Your task to perform on an android device: check data usage Image 0: 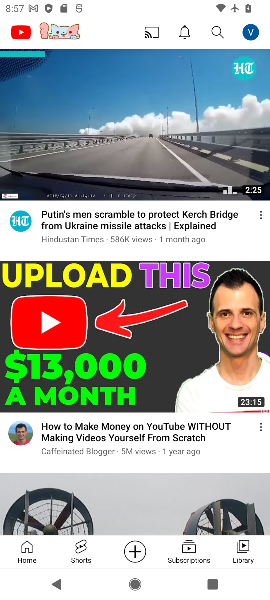
Step 0: press home button
Your task to perform on an android device: check data usage Image 1: 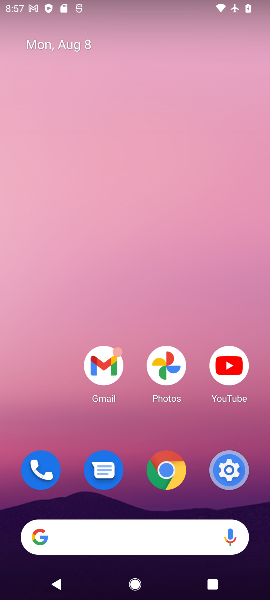
Step 1: drag from (77, 525) to (76, 223)
Your task to perform on an android device: check data usage Image 2: 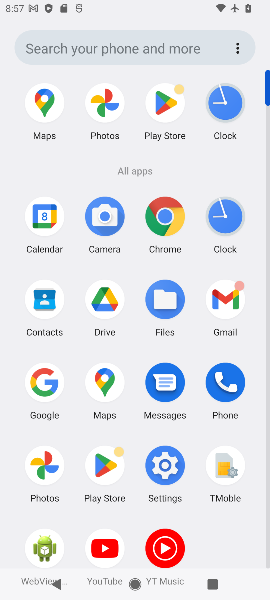
Step 2: click (156, 465)
Your task to perform on an android device: check data usage Image 3: 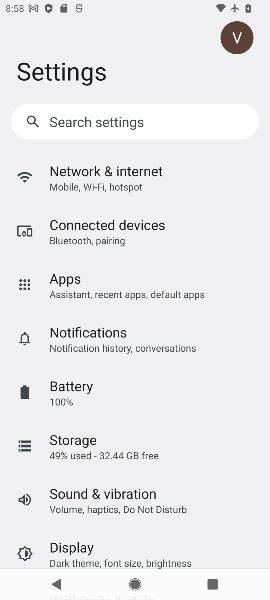
Step 3: click (91, 186)
Your task to perform on an android device: check data usage Image 4: 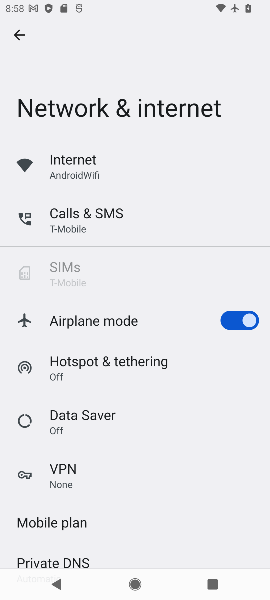
Step 4: click (80, 170)
Your task to perform on an android device: check data usage Image 5: 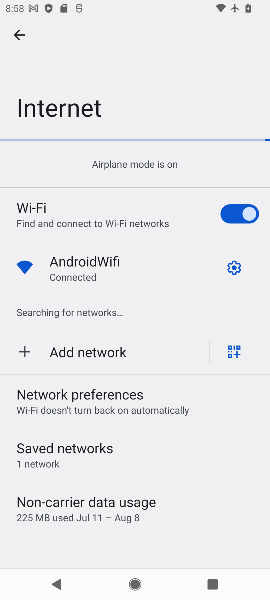
Step 5: task complete